Your task to perform on an android device: turn on translation in the chrome app Image 0: 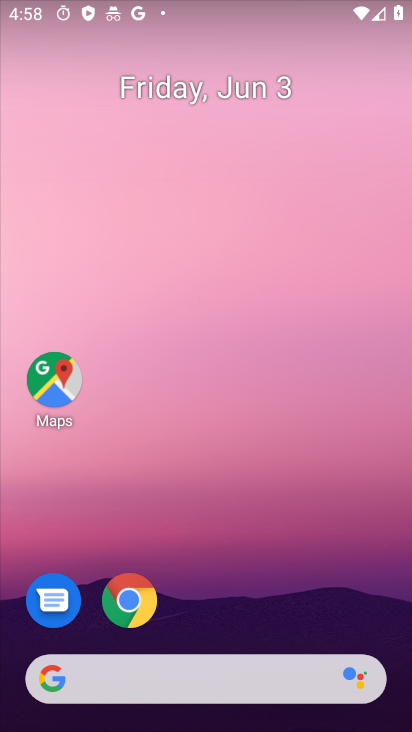
Step 0: click (119, 579)
Your task to perform on an android device: turn on translation in the chrome app Image 1: 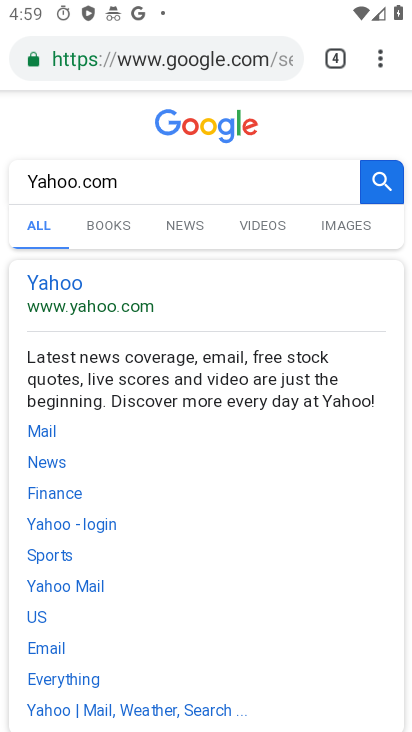
Step 1: click (377, 51)
Your task to perform on an android device: turn on translation in the chrome app Image 2: 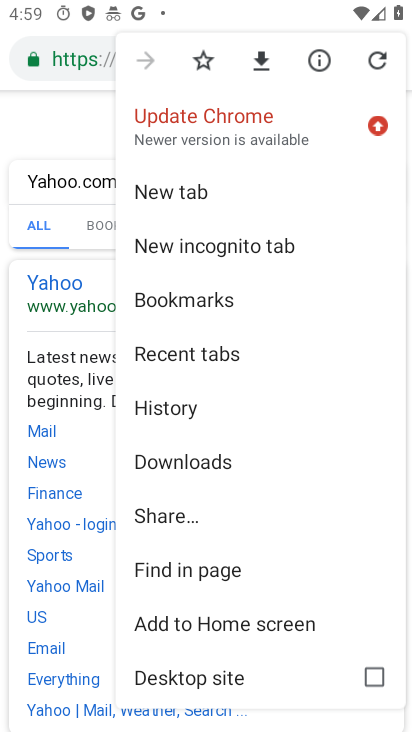
Step 2: drag from (306, 641) to (252, 434)
Your task to perform on an android device: turn on translation in the chrome app Image 3: 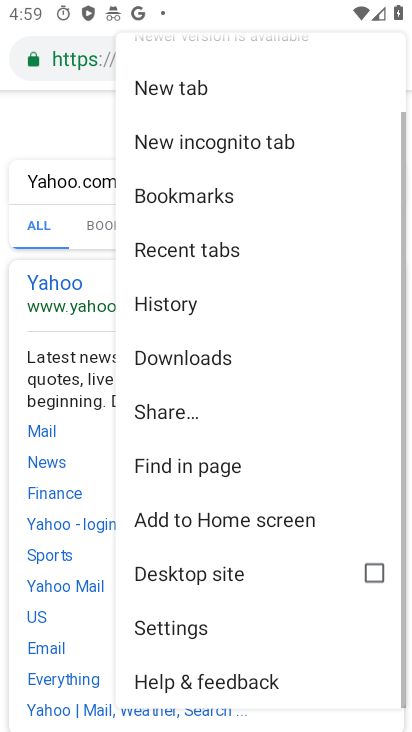
Step 3: click (197, 633)
Your task to perform on an android device: turn on translation in the chrome app Image 4: 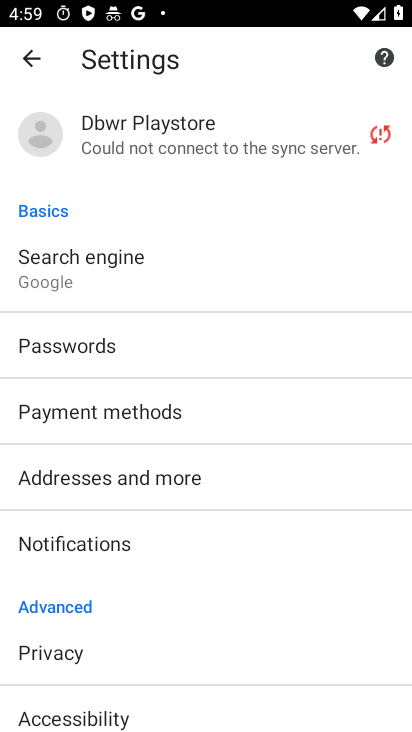
Step 4: drag from (236, 656) to (234, 346)
Your task to perform on an android device: turn on translation in the chrome app Image 5: 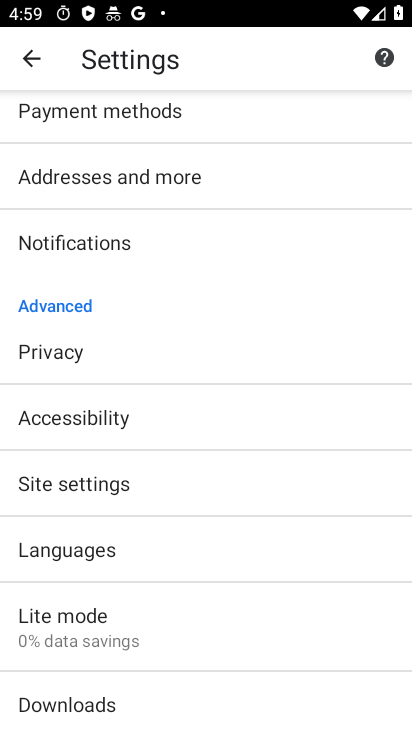
Step 5: click (67, 552)
Your task to perform on an android device: turn on translation in the chrome app Image 6: 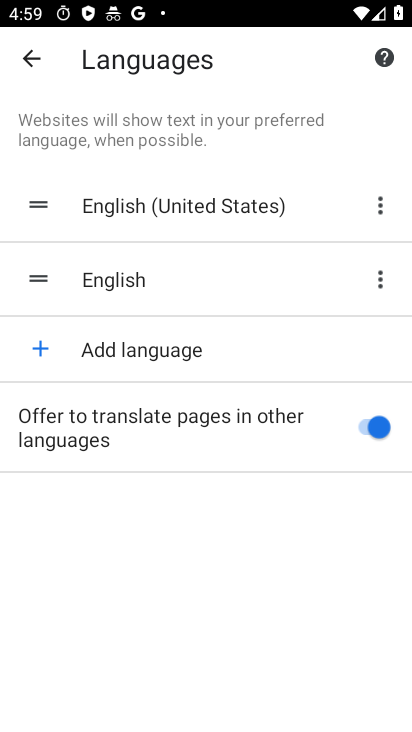
Step 6: task complete